Your task to perform on an android device: What is the recent news? Image 0: 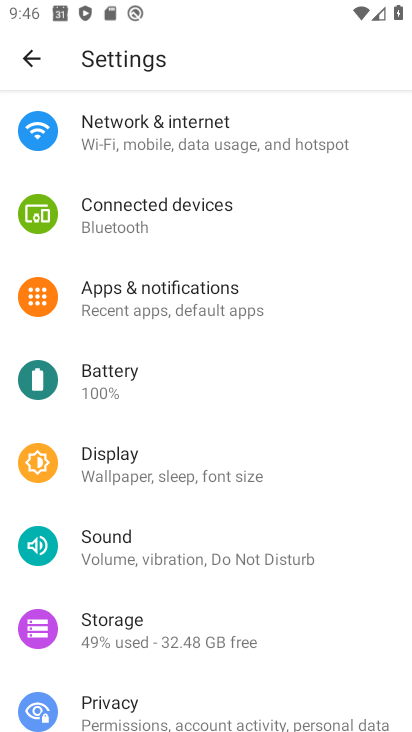
Step 0: press home button
Your task to perform on an android device: What is the recent news? Image 1: 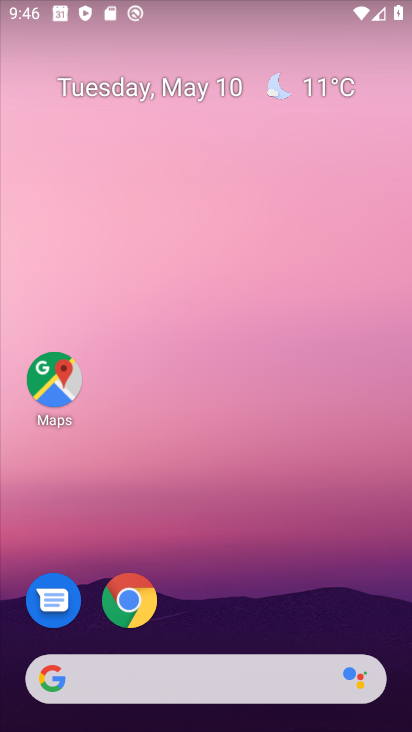
Step 1: click (132, 591)
Your task to perform on an android device: What is the recent news? Image 2: 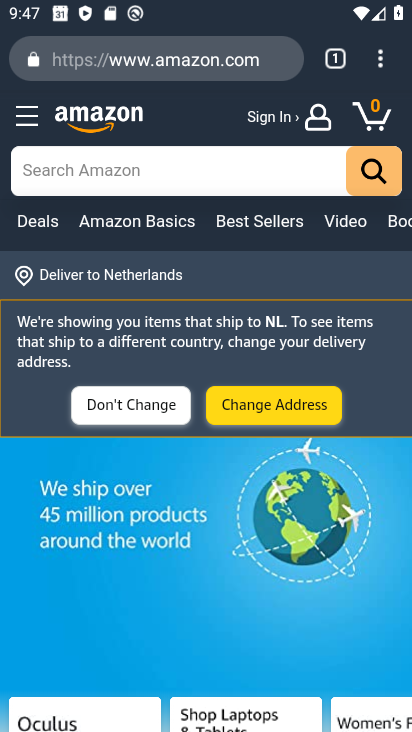
Step 2: click (379, 56)
Your task to perform on an android device: What is the recent news? Image 3: 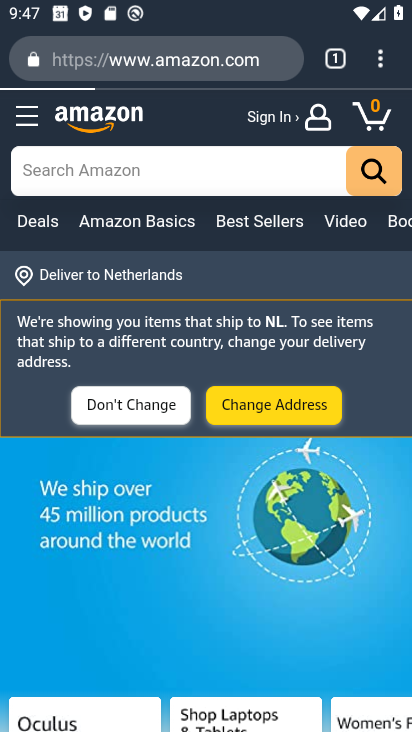
Step 3: click (185, 121)
Your task to perform on an android device: What is the recent news? Image 4: 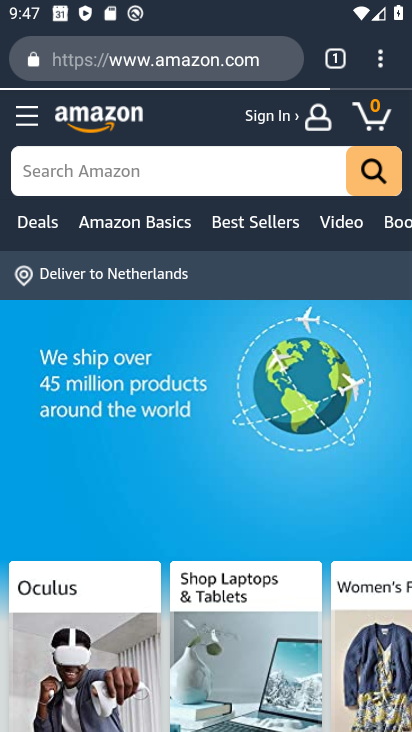
Step 4: task complete